Your task to perform on an android device: make emails show in primary in the gmail app Image 0: 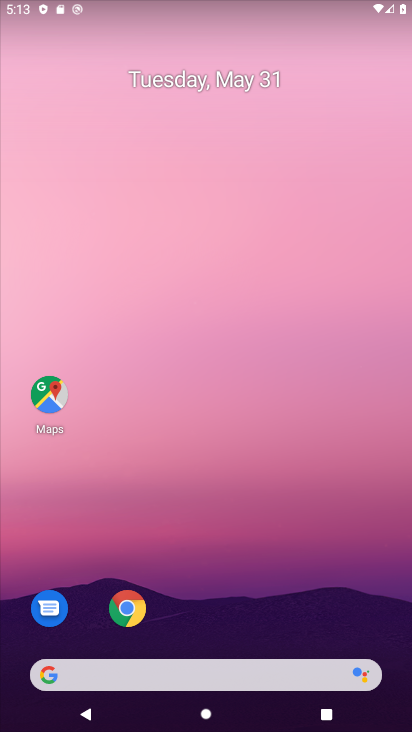
Step 0: drag from (233, 638) to (183, 200)
Your task to perform on an android device: make emails show in primary in the gmail app Image 1: 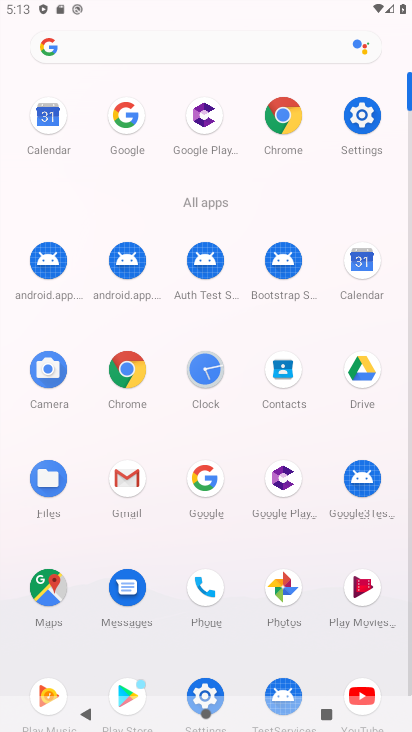
Step 1: click (125, 487)
Your task to perform on an android device: make emails show in primary in the gmail app Image 2: 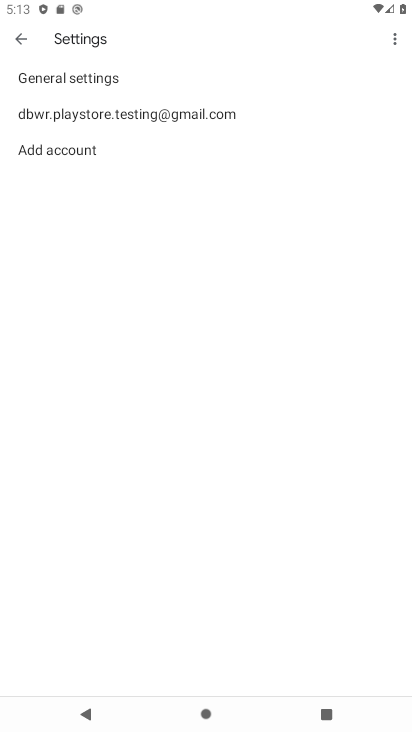
Step 2: click (85, 119)
Your task to perform on an android device: make emails show in primary in the gmail app Image 3: 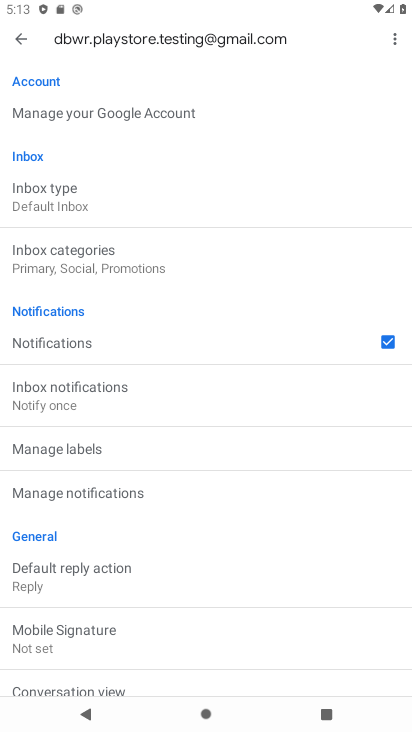
Step 3: click (85, 200)
Your task to perform on an android device: make emails show in primary in the gmail app Image 4: 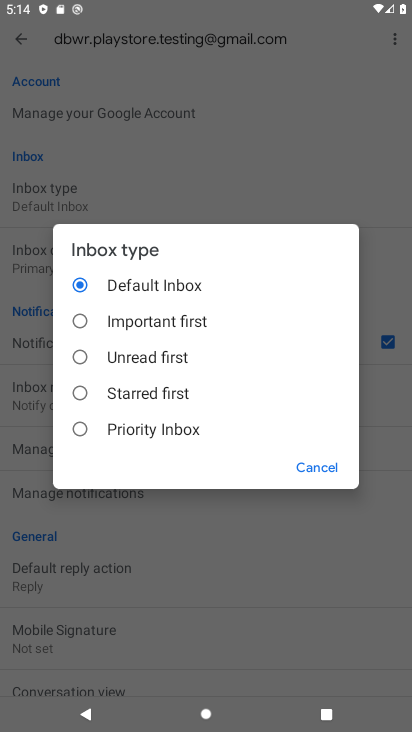
Step 4: click (326, 467)
Your task to perform on an android device: make emails show in primary in the gmail app Image 5: 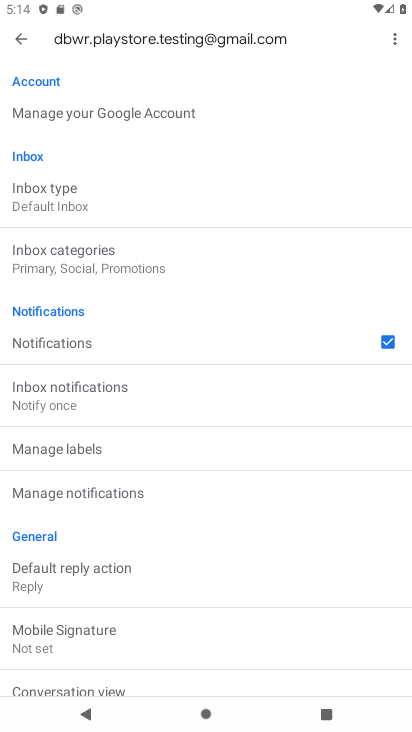
Step 5: click (53, 265)
Your task to perform on an android device: make emails show in primary in the gmail app Image 6: 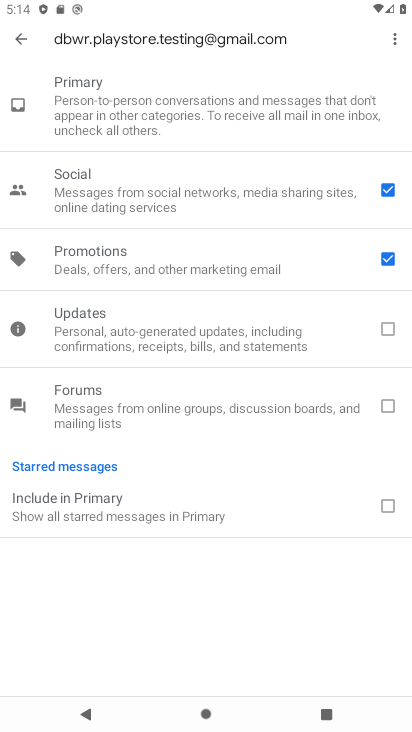
Step 6: click (395, 260)
Your task to perform on an android device: make emails show in primary in the gmail app Image 7: 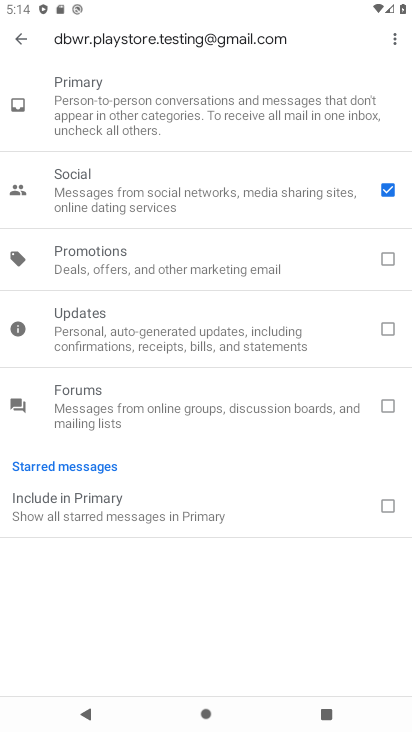
Step 7: click (383, 186)
Your task to perform on an android device: make emails show in primary in the gmail app Image 8: 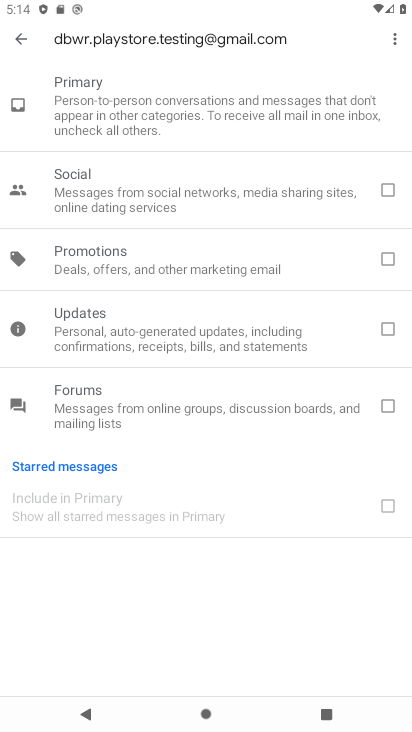
Step 8: click (20, 45)
Your task to perform on an android device: make emails show in primary in the gmail app Image 9: 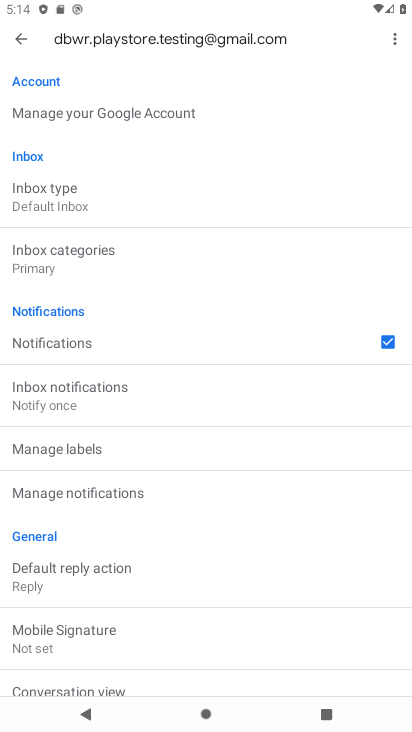
Step 9: task complete